Your task to perform on an android device: change timer sound Image 0: 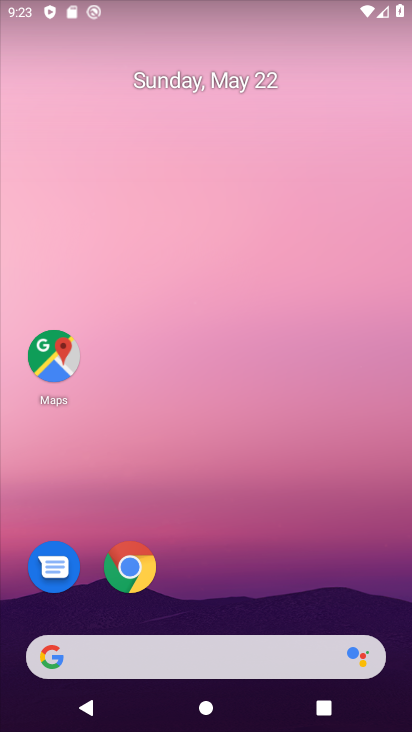
Step 0: drag from (245, 604) to (232, 234)
Your task to perform on an android device: change timer sound Image 1: 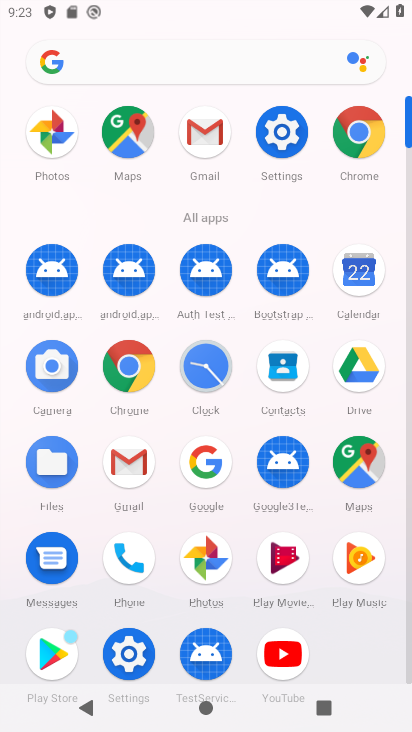
Step 1: click (216, 353)
Your task to perform on an android device: change timer sound Image 2: 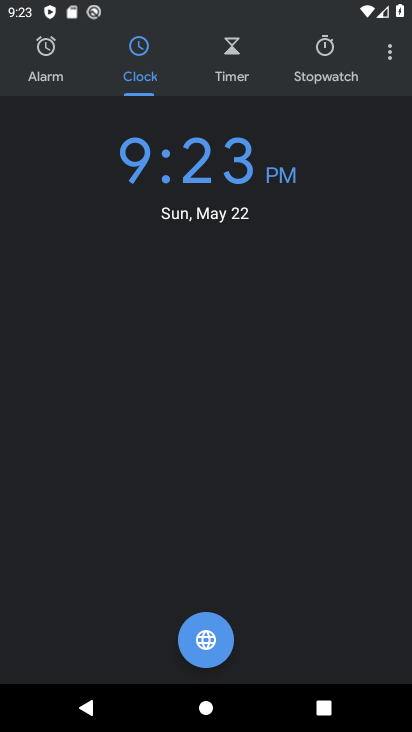
Step 2: click (388, 58)
Your task to perform on an android device: change timer sound Image 3: 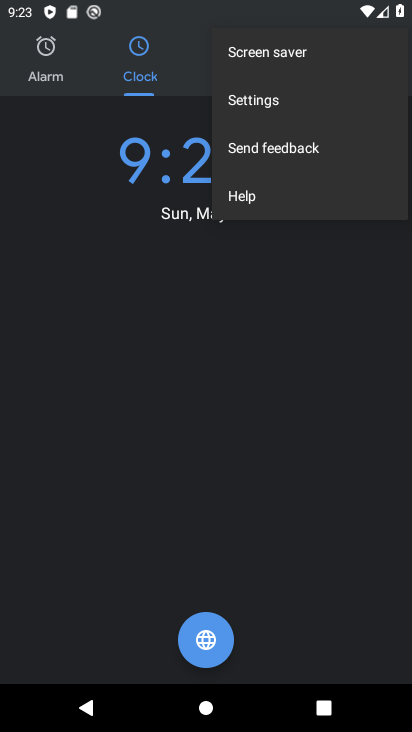
Step 3: click (306, 87)
Your task to perform on an android device: change timer sound Image 4: 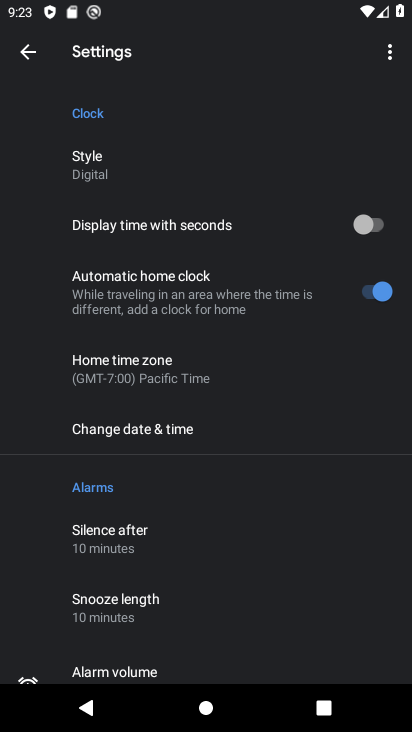
Step 4: drag from (209, 553) to (259, 240)
Your task to perform on an android device: change timer sound Image 5: 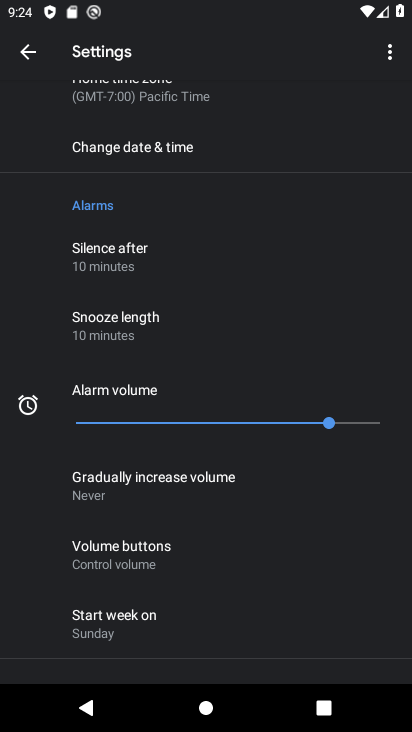
Step 5: drag from (251, 194) to (254, 568)
Your task to perform on an android device: change timer sound Image 6: 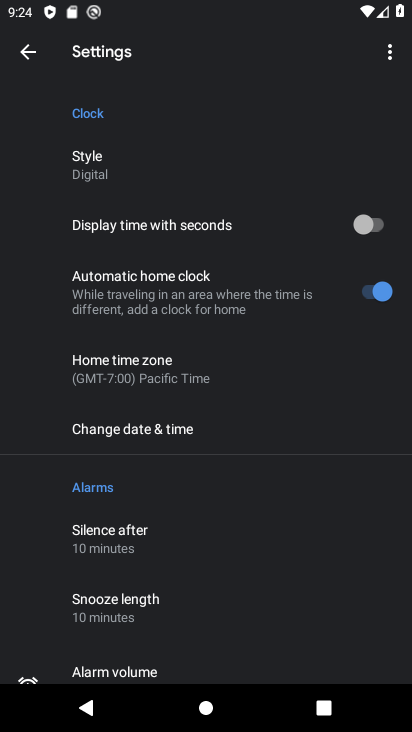
Step 6: drag from (199, 506) to (227, 248)
Your task to perform on an android device: change timer sound Image 7: 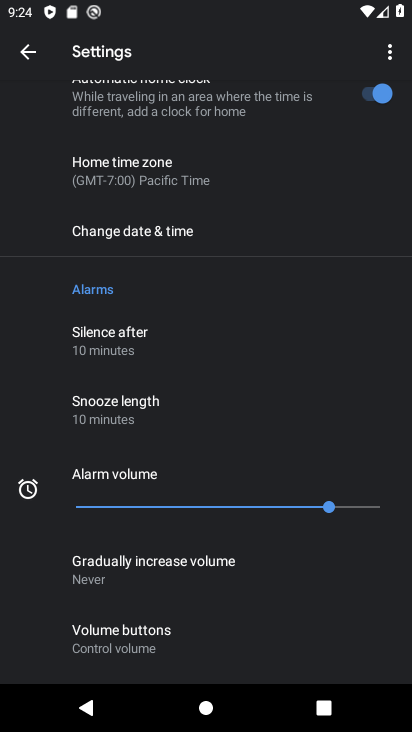
Step 7: drag from (274, 187) to (281, 150)
Your task to perform on an android device: change timer sound Image 8: 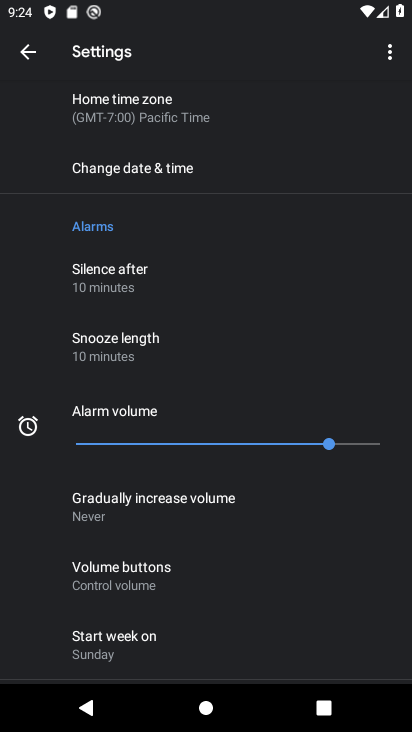
Step 8: drag from (216, 183) to (200, 556)
Your task to perform on an android device: change timer sound Image 9: 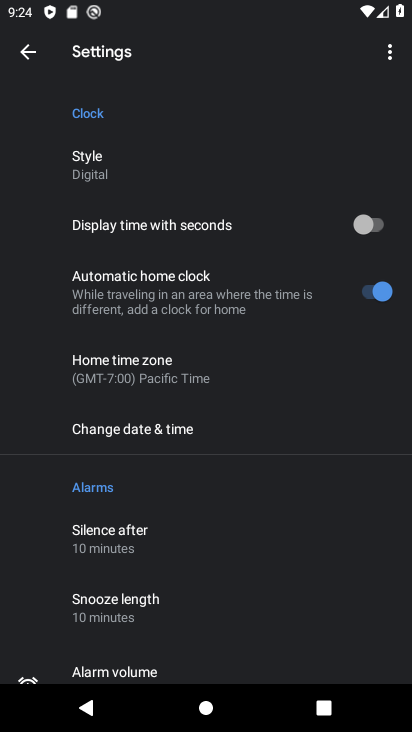
Step 9: drag from (227, 546) to (215, 261)
Your task to perform on an android device: change timer sound Image 10: 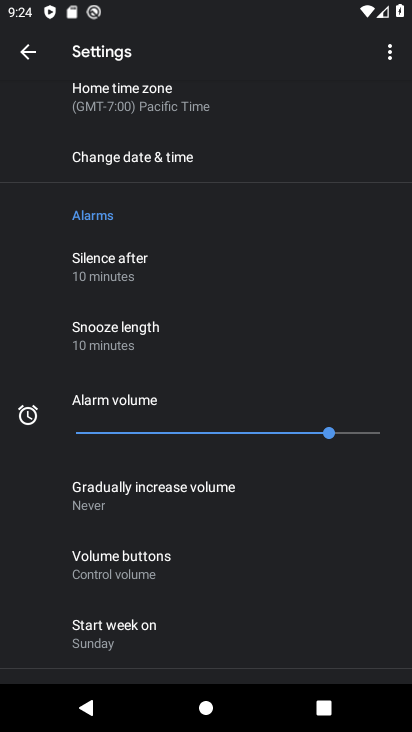
Step 10: drag from (157, 579) to (221, 355)
Your task to perform on an android device: change timer sound Image 11: 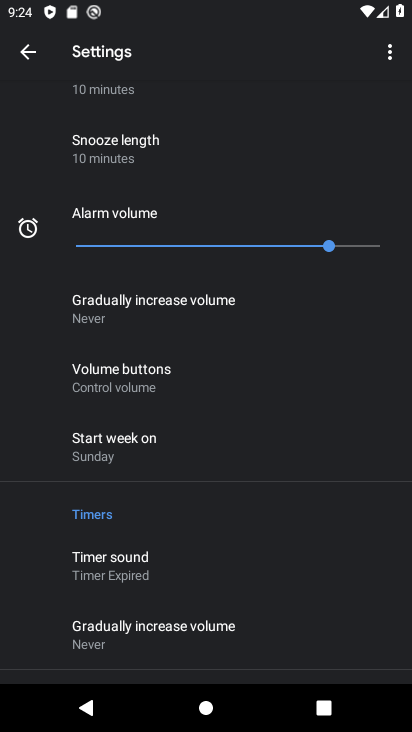
Step 11: click (142, 583)
Your task to perform on an android device: change timer sound Image 12: 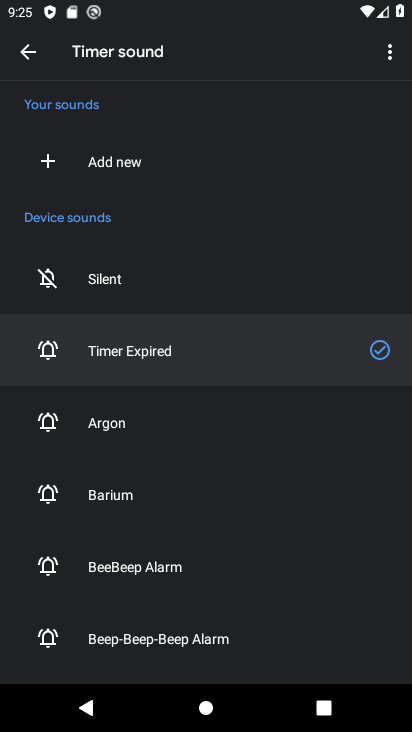
Step 12: task complete